Your task to perform on an android device: Open calendar and show me the fourth week of next month Image 0: 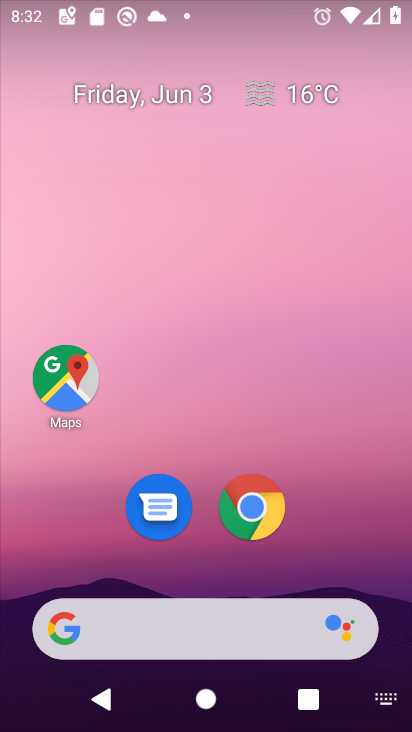
Step 0: click (150, 100)
Your task to perform on an android device: Open calendar and show me the fourth week of next month Image 1: 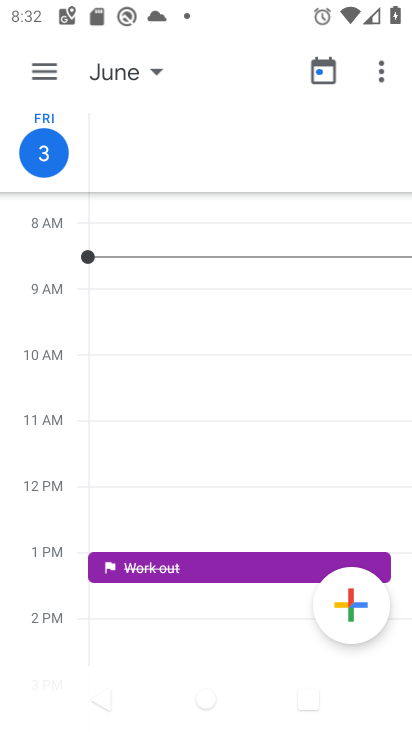
Step 1: click (17, 65)
Your task to perform on an android device: Open calendar and show me the fourth week of next month Image 2: 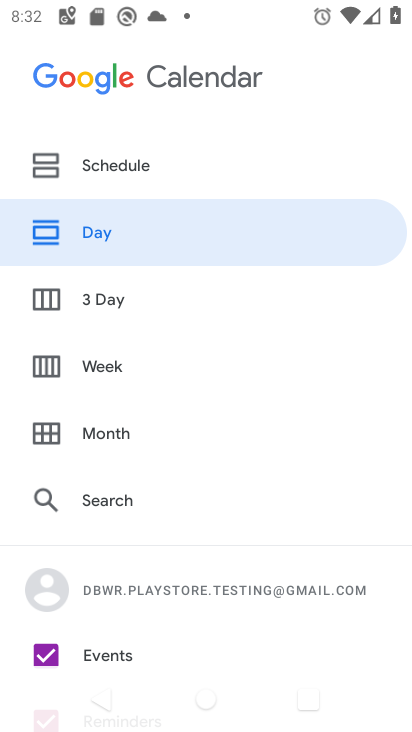
Step 2: click (173, 368)
Your task to perform on an android device: Open calendar and show me the fourth week of next month Image 3: 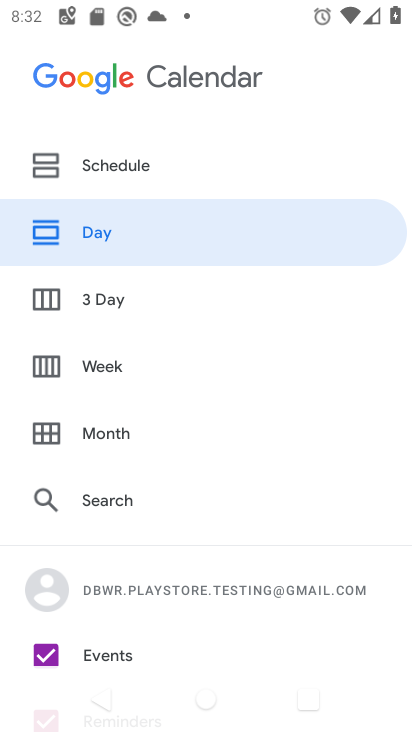
Step 3: click (169, 369)
Your task to perform on an android device: Open calendar and show me the fourth week of next month Image 4: 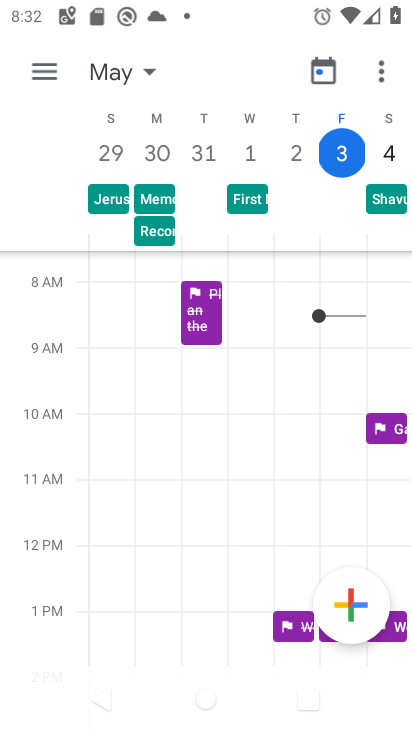
Step 4: click (136, 66)
Your task to perform on an android device: Open calendar and show me the fourth week of next month Image 5: 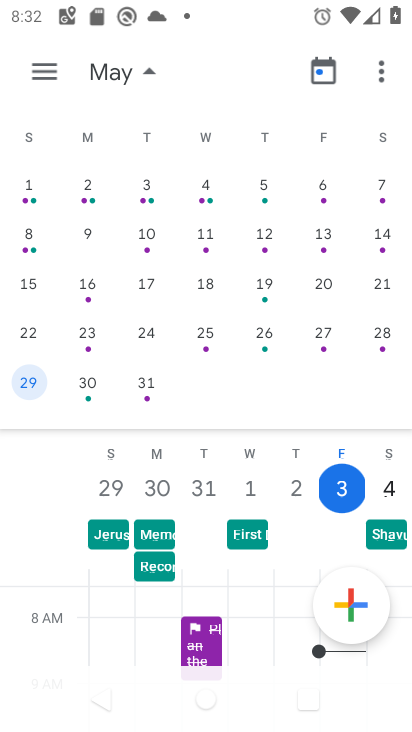
Step 5: drag from (351, 276) to (10, 177)
Your task to perform on an android device: Open calendar and show me the fourth week of next month Image 6: 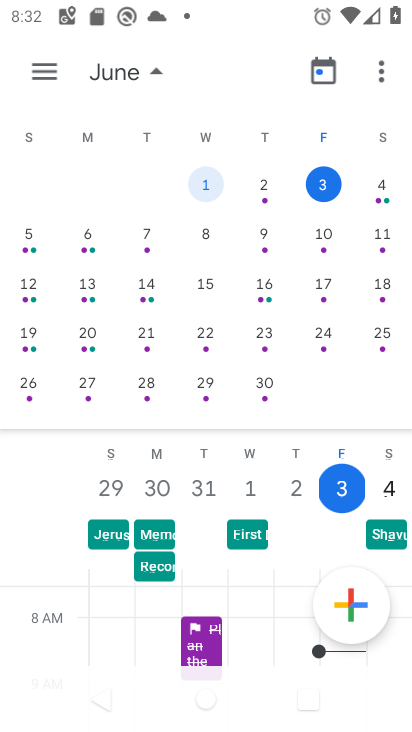
Step 6: drag from (319, 282) to (0, 239)
Your task to perform on an android device: Open calendar and show me the fourth week of next month Image 7: 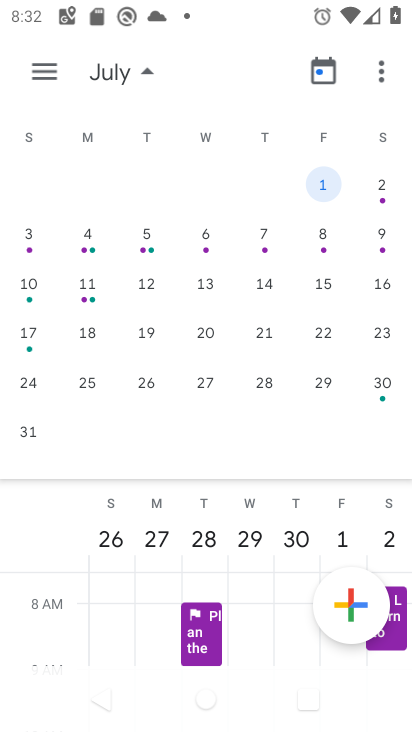
Step 7: click (37, 343)
Your task to perform on an android device: Open calendar and show me the fourth week of next month Image 8: 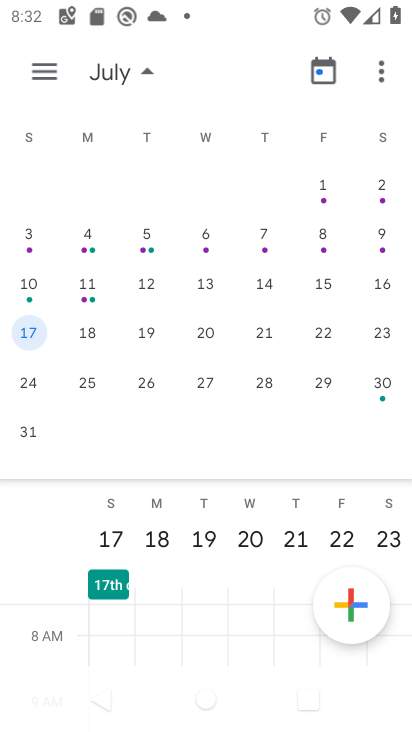
Step 8: task complete